Your task to perform on an android device: turn on the 24-hour format for clock Image 0: 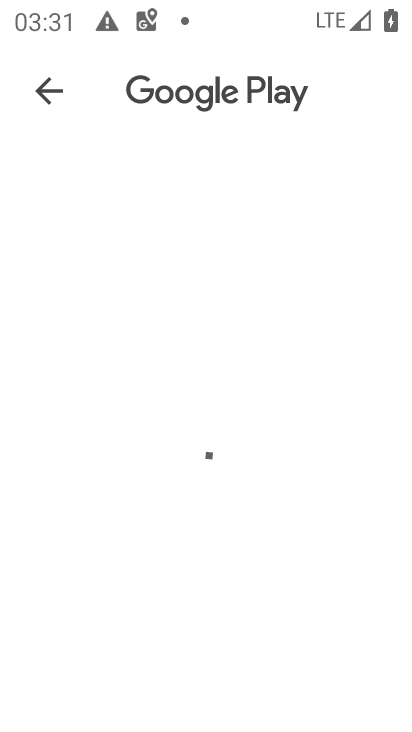
Step 0: click (247, 586)
Your task to perform on an android device: turn on the 24-hour format for clock Image 1: 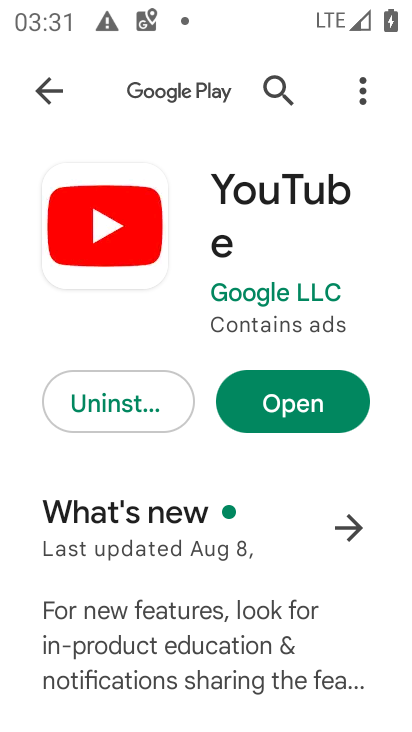
Step 1: press home button
Your task to perform on an android device: turn on the 24-hour format for clock Image 2: 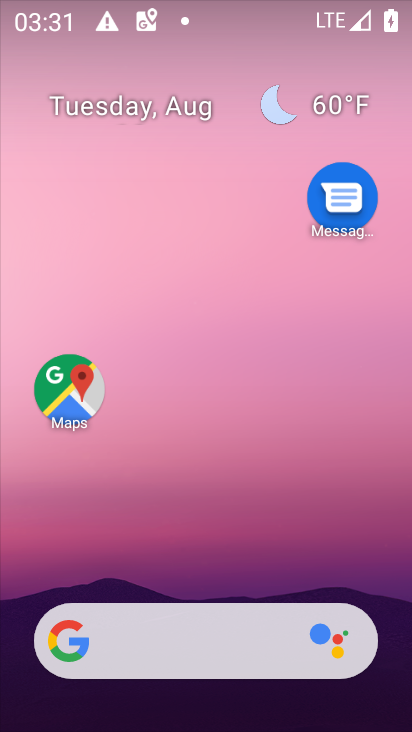
Step 2: drag from (265, 578) to (275, 89)
Your task to perform on an android device: turn on the 24-hour format for clock Image 3: 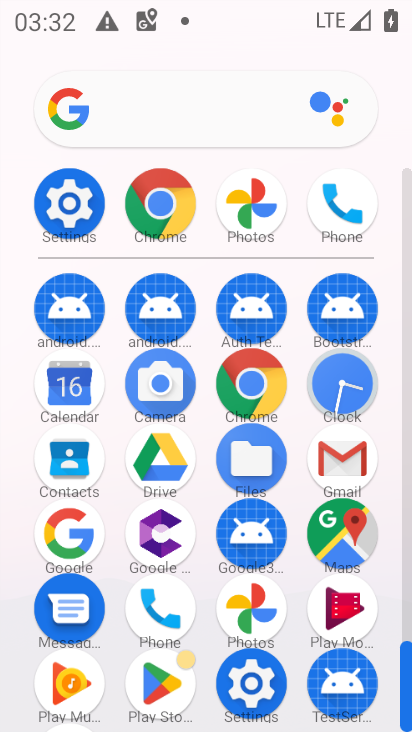
Step 3: click (75, 199)
Your task to perform on an android device: turn on the 24-hour format for clock Image 4: 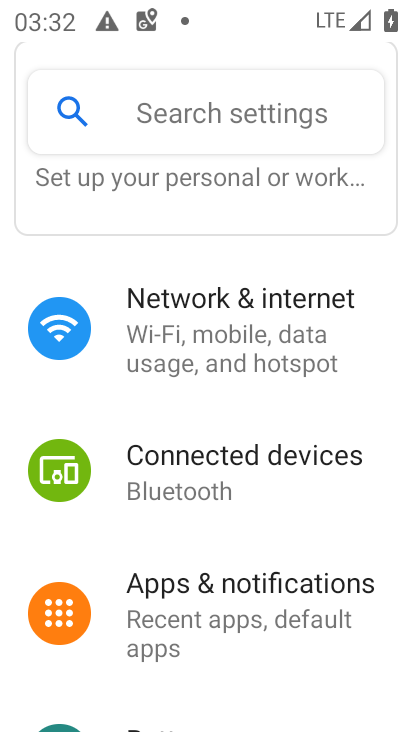
Step 4: drag from (219, 611) to (225, 222)
Your task to perform on an android device: turn on the 24-hour format for clock Image 5: 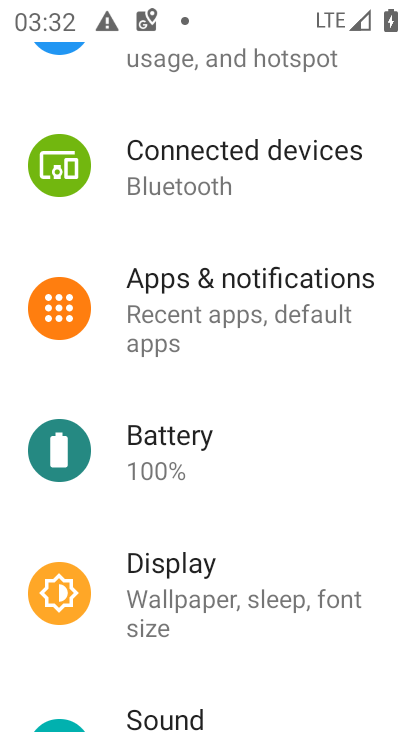
Step 5: press home button
Your task to perform on an android device: turn on the 24-hour format for clock Image 6: 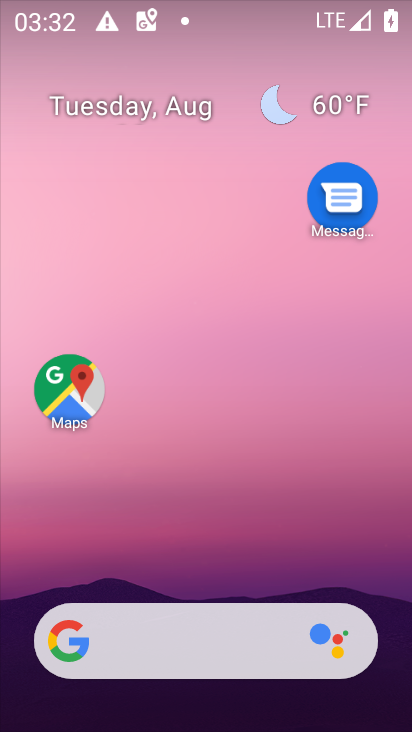
Step 6: click (262, 611)
Your task to perform on an android device: turn on the 24-hour format for clock Image 7: 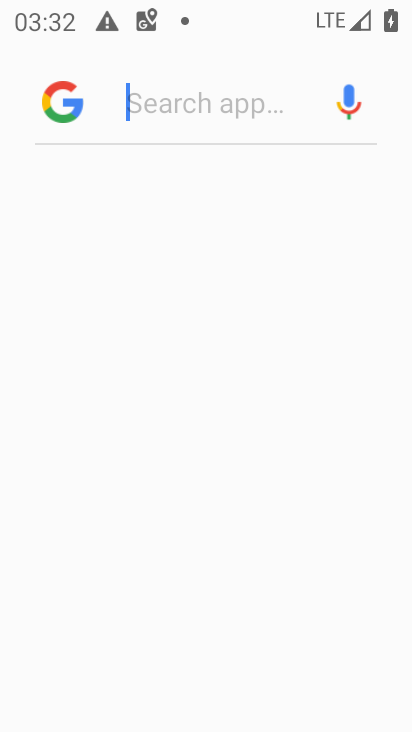
Step 7: task complete